Your task to perform on an android device: turn on bluetooth scan Image 0: 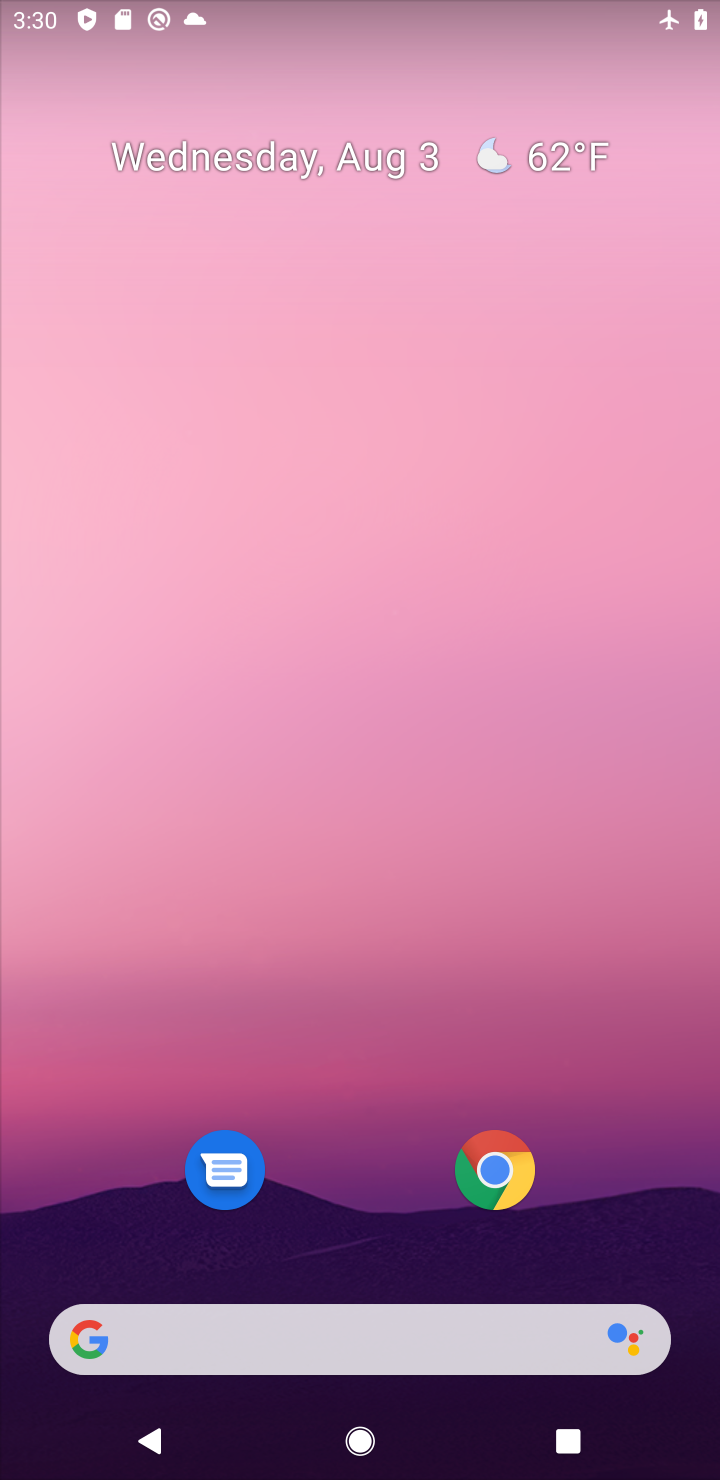
Step 0: drag from (356, 997) to (374, 223)
Your task to perform on an android device: turn on bluetooth scan Image 1: 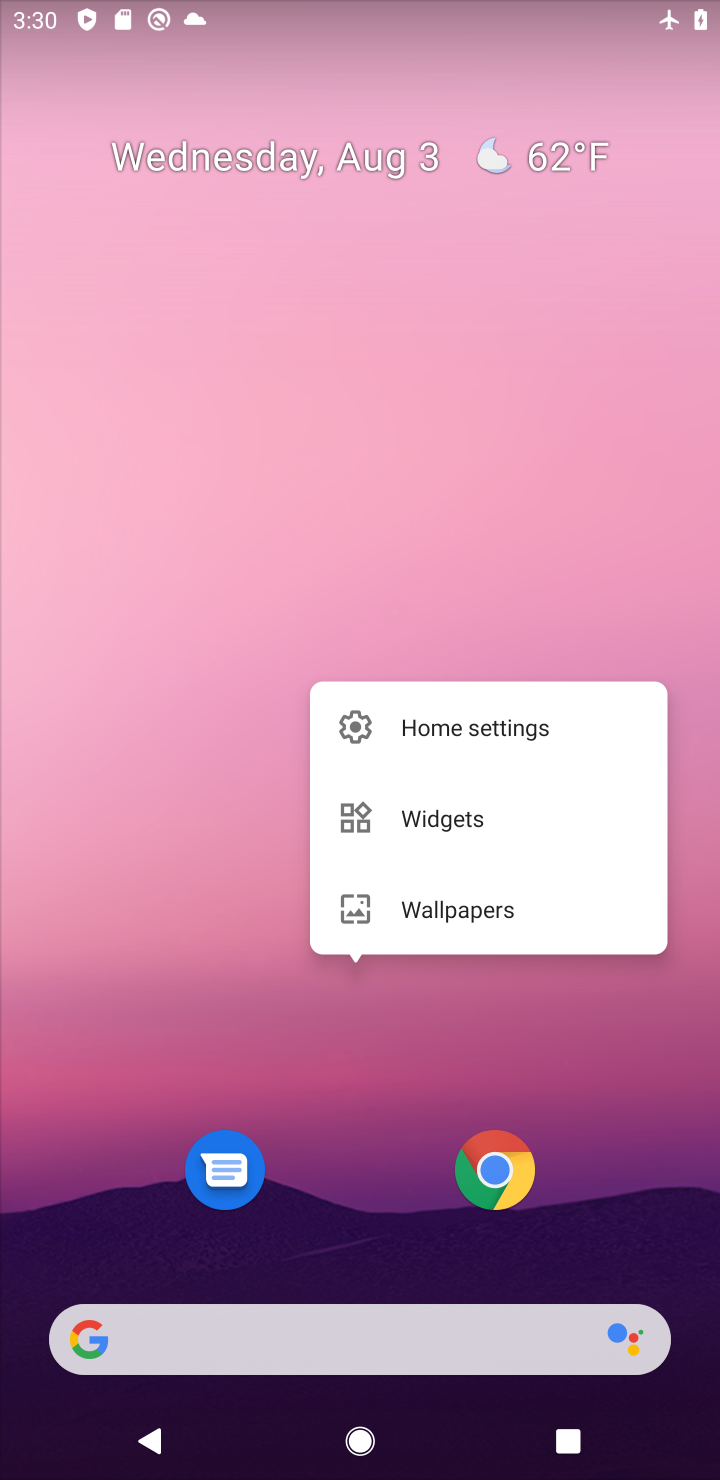
Step 1: drag from (322, 1196) to (410, 430)
Your task to perform on an android device: turn on bluetooth scan Image 2: 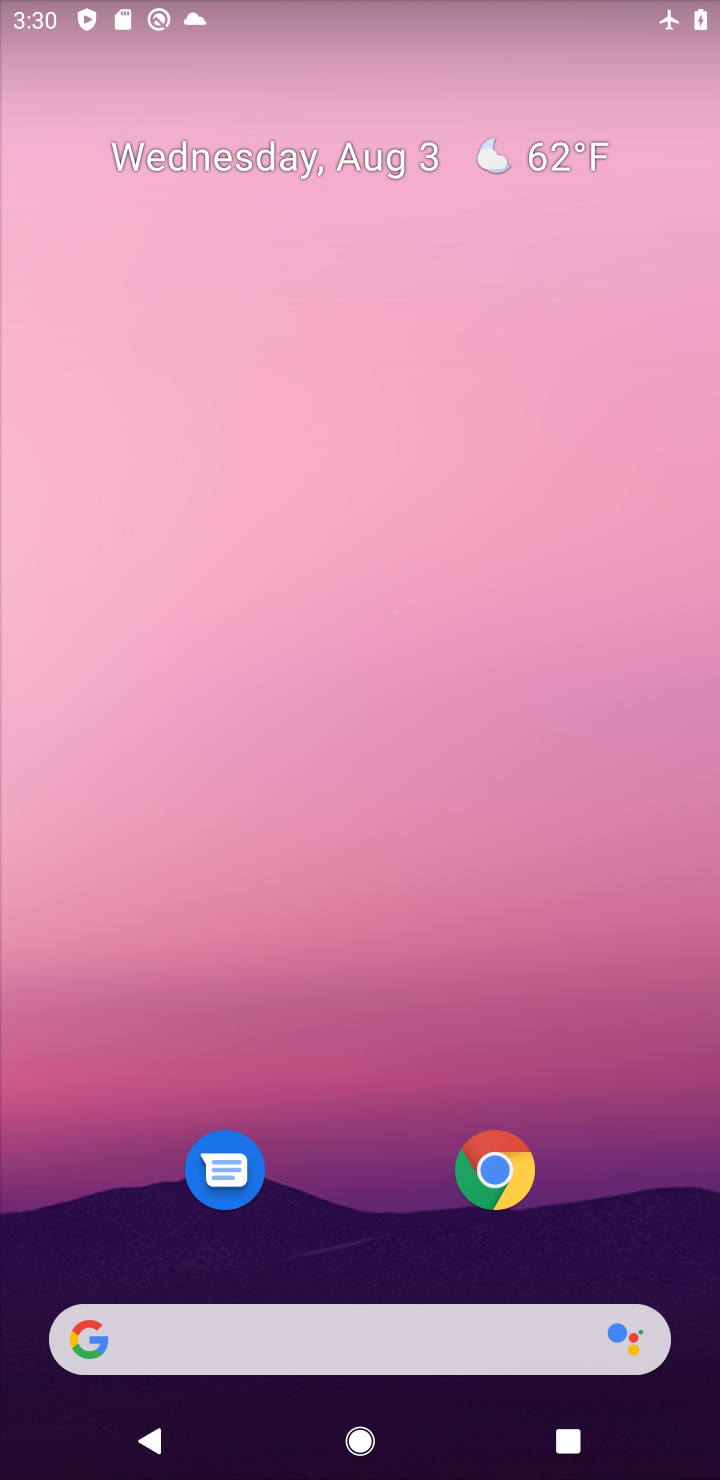
Step 2: click (369, 397)
Your task to perform on an android device: turn on bluetooth scan Image 3: 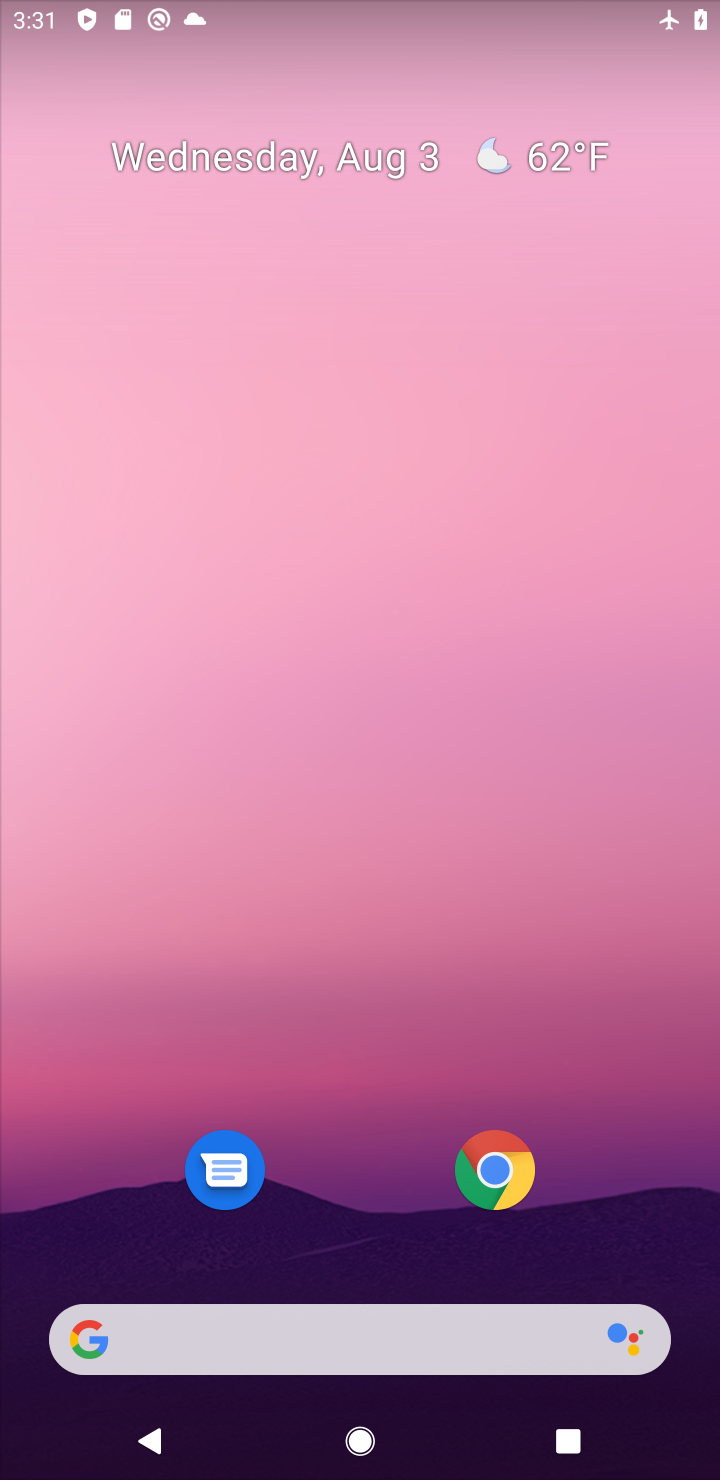
Step 3: drag from (347, 1140) to (347, 278)
Your task to perform on an android device: turn on bluetooth scan Image 4: 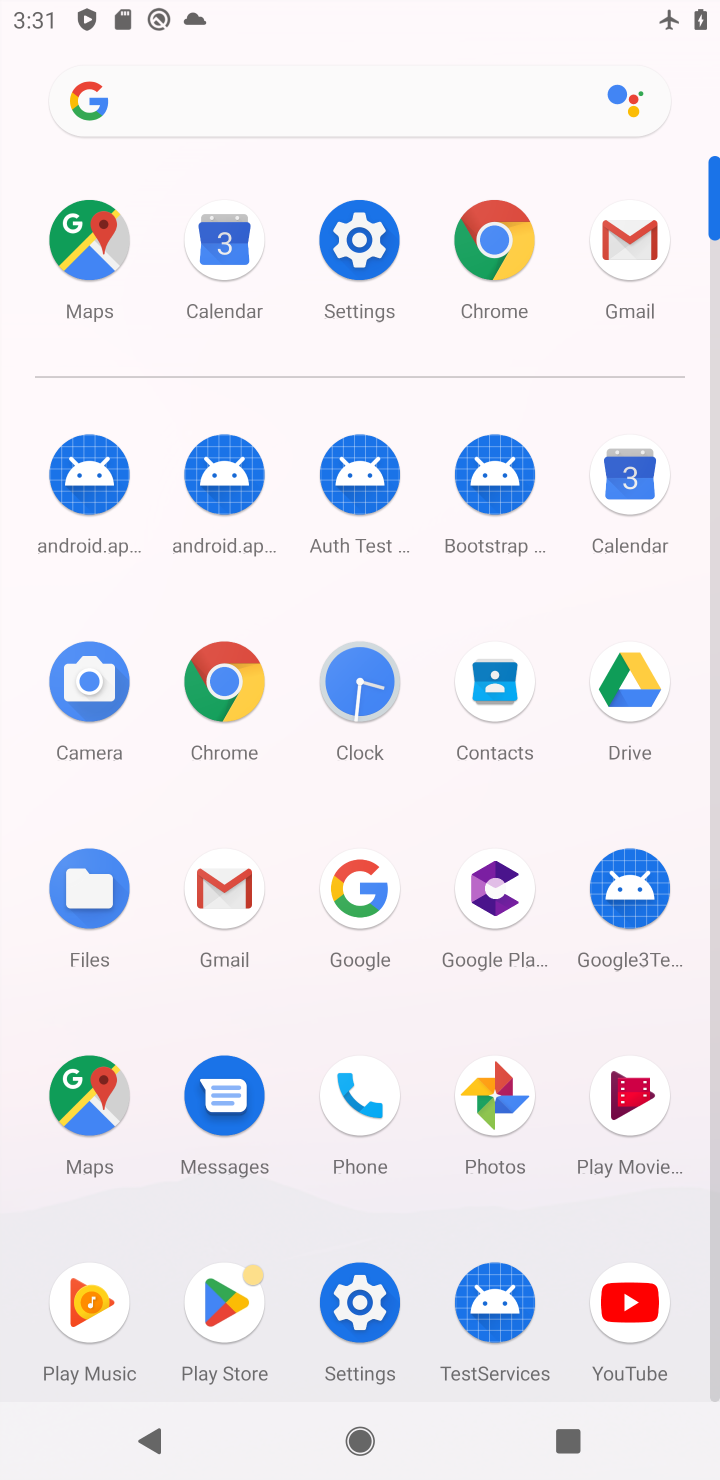
Step 4: click (361, 246)
Your task to perform on an android device: turn on bluetooth scan Image 5: 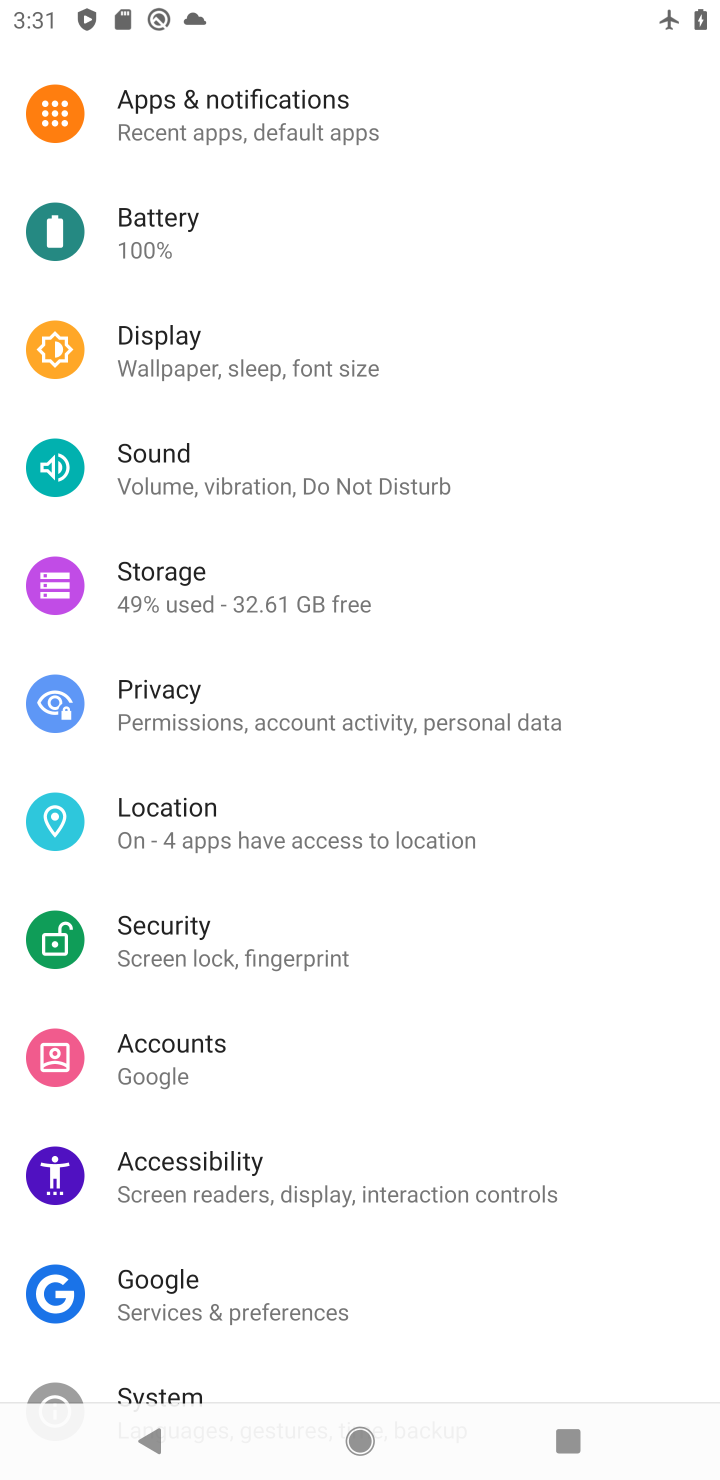
Step 5: click (215, 830)
Your task to perform on an android device: turn on bluetooth scan Image 6: 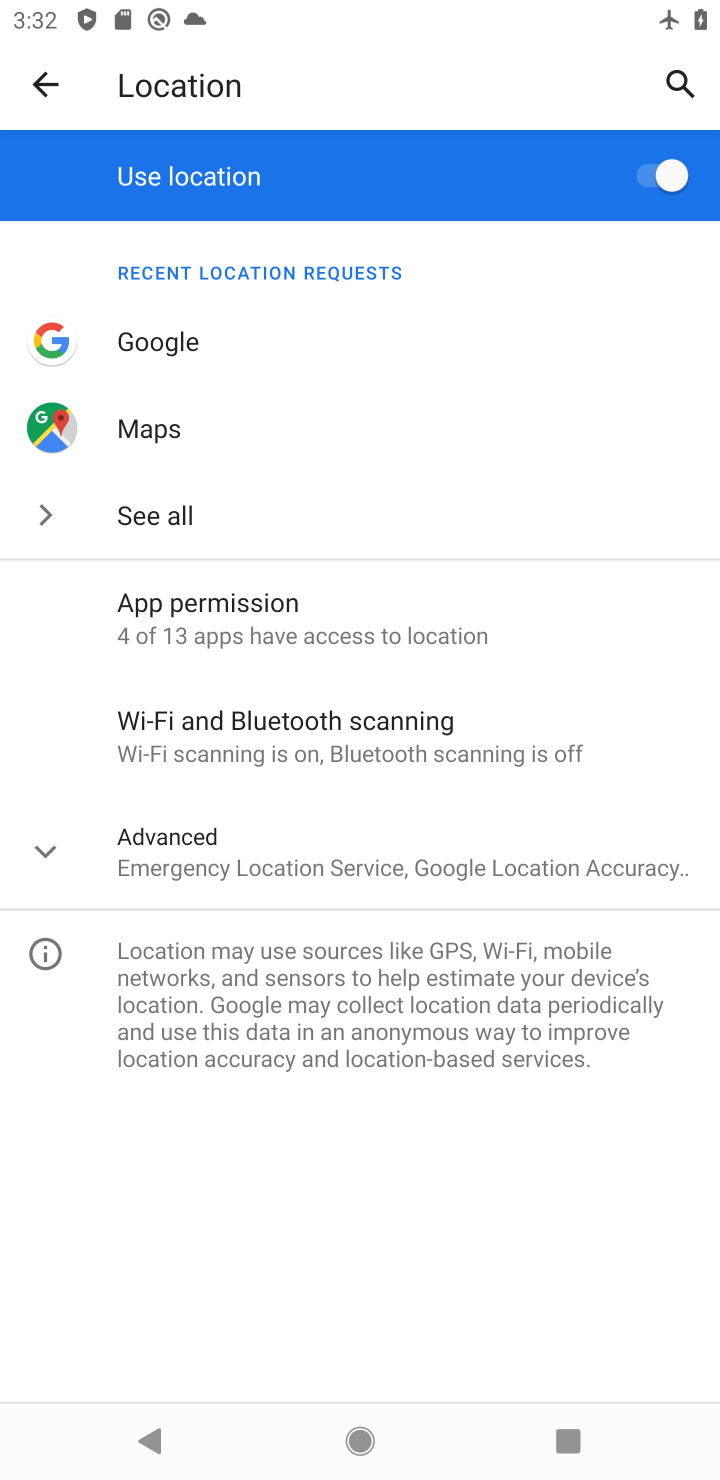
Step 6: click (320, 744)
Your task to perform on an android device: turn on bluetooth scan Image 7: 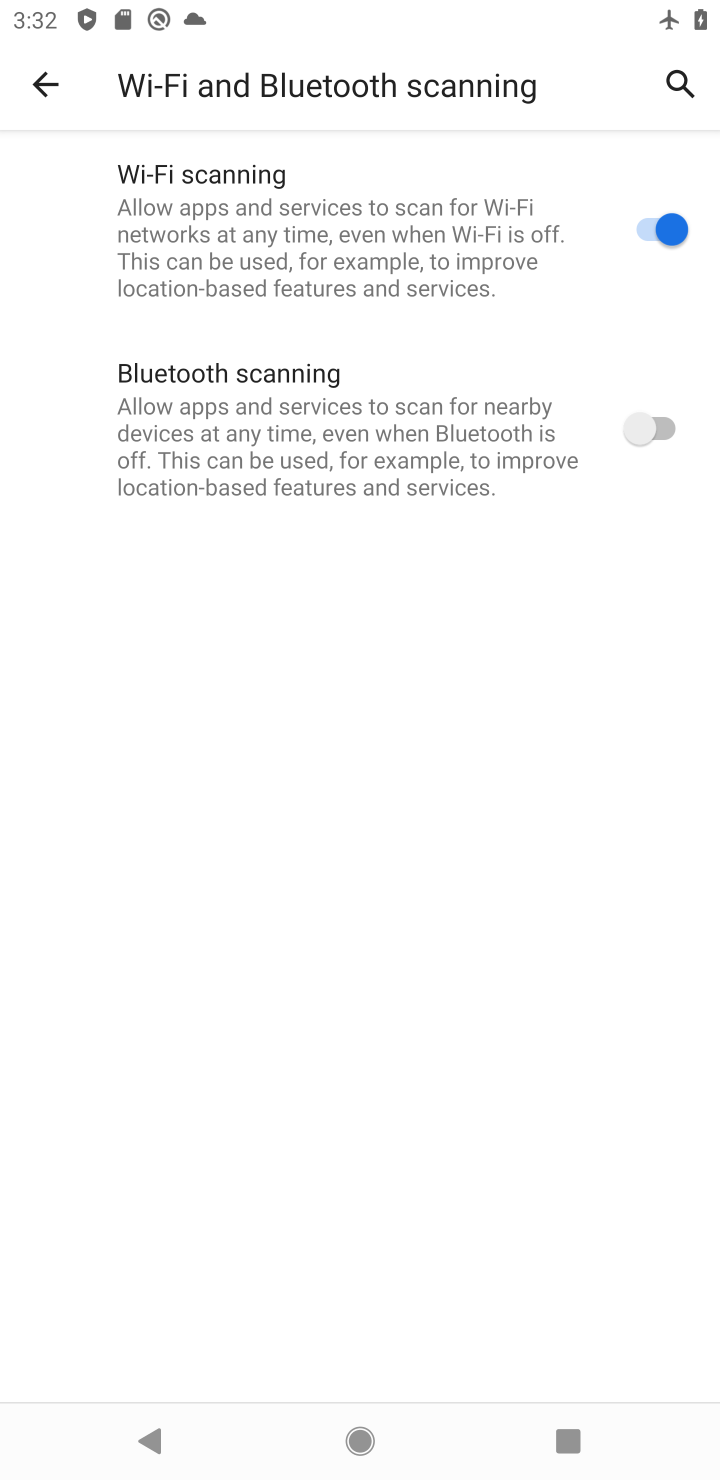
Step 7: click (675, 423)
Your task to perform on an android device: turn on bluetooth scan Image 8: 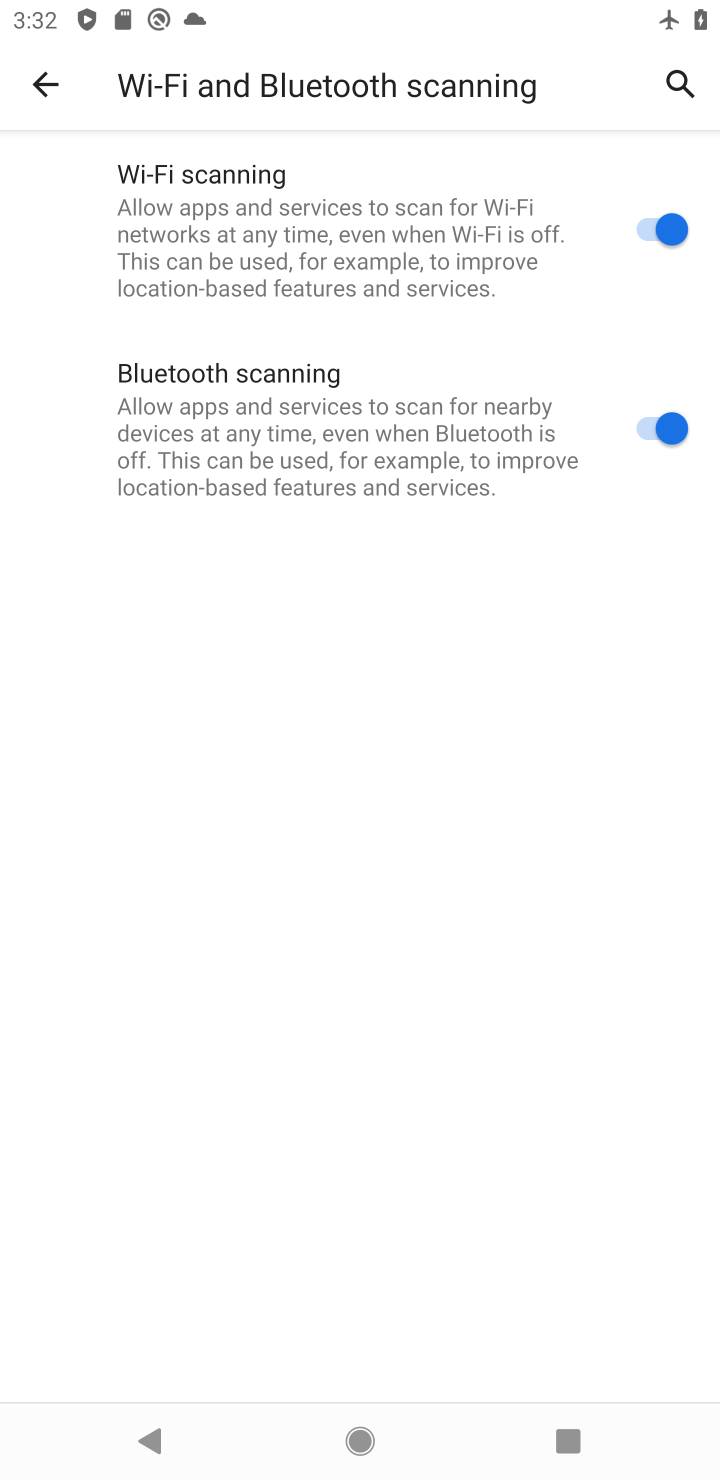
Step 8: task complete